Your task to perform on an android device: Open display settings Image 0: 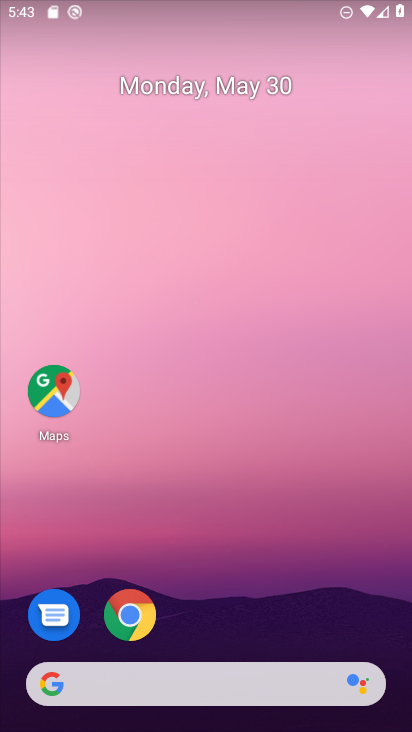
Step 0: drag from (230, 617) to (225, 56)
Your task to perform on an android device: Open display settings Image 1: 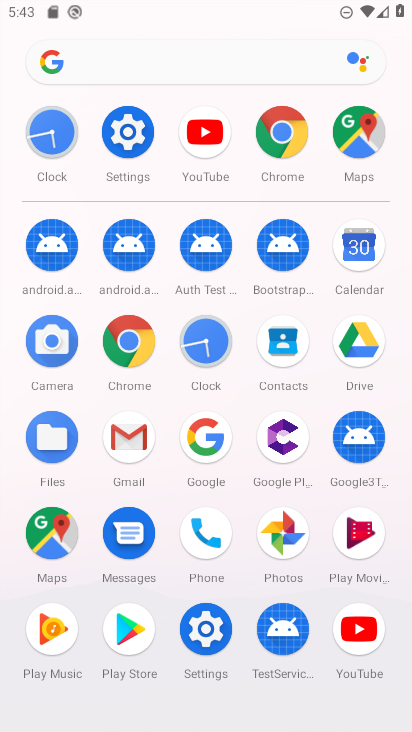
Step 1: click (129, 119)
Your task to perform on an android device: Open display settings Image 2: 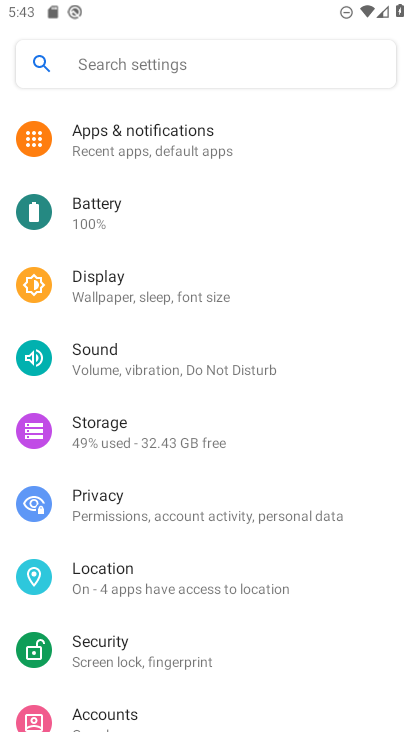
Step 2: click (174, 294)
Your task to perform on an android device: Open display settings Image 3: 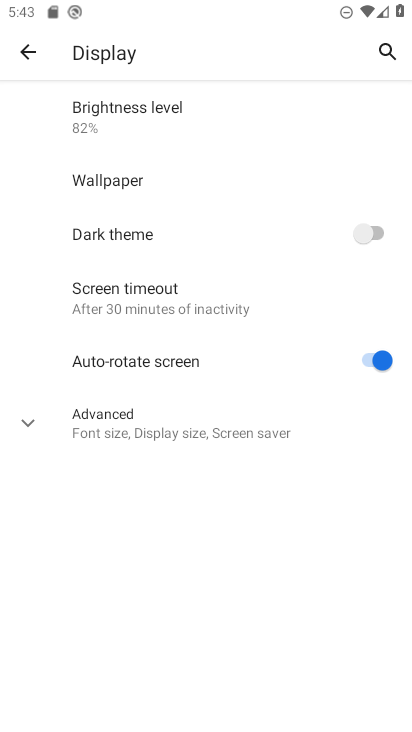
Step 3: task complete